Your task to perform on an android device: Open CNN.com Image 0: 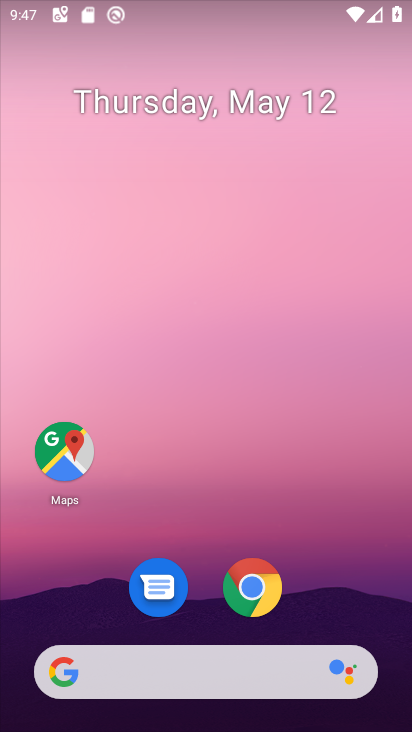
Step 0: drag from (324, 619) to (232, 118)
Your task to perform on an android device: Open CNN.com Image 1: 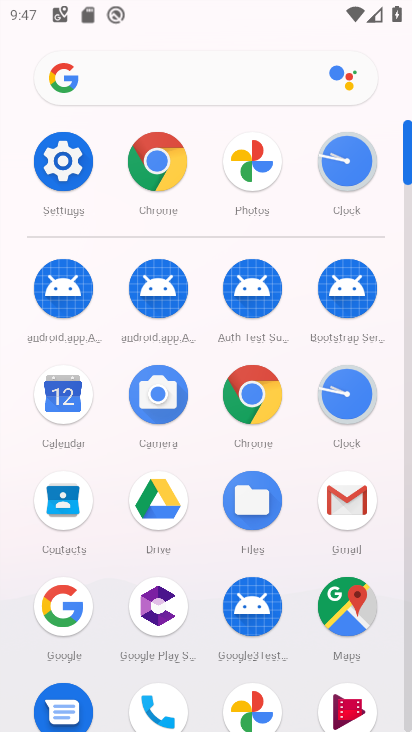
Step 1: click (176, 177)
Your task to perform on an android device: Open CNN.com Image 2: 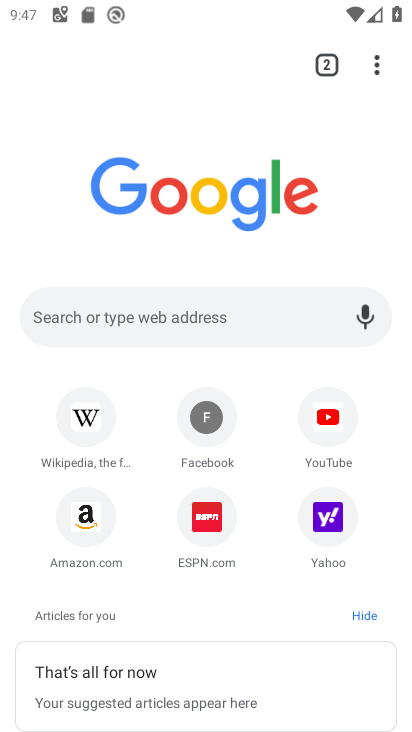
Step 2: click (212, 328)
Your task to perform on an android device: Open CNN.com Image 3: 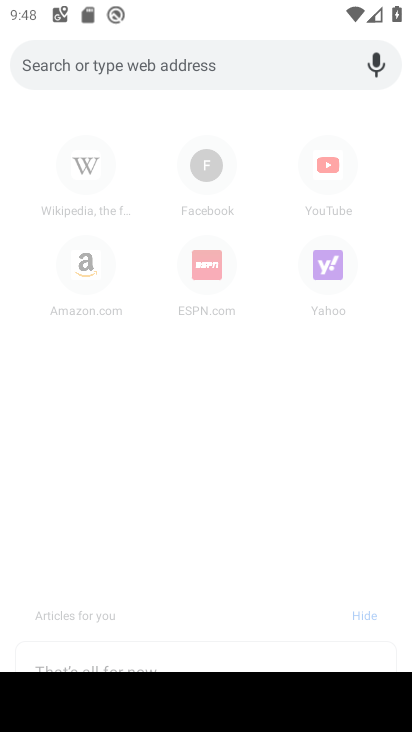
Step 3: type "cnn.com"
Your task to perform on an android device: Open CNN.com Image 4: 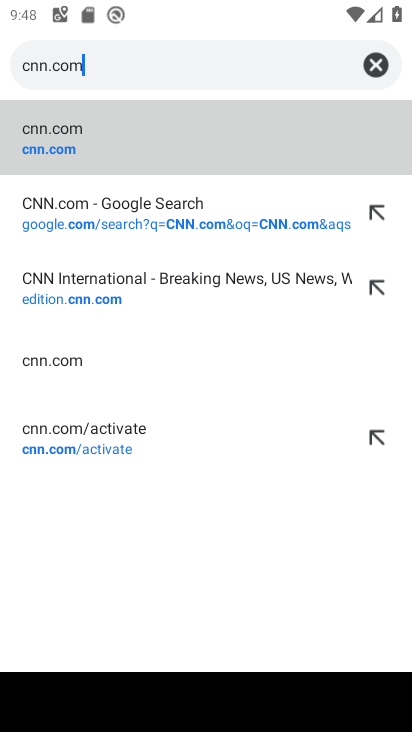
Step 4: click (244, 135)
Your task to perform on an android device: Open CNN.com Image 5: 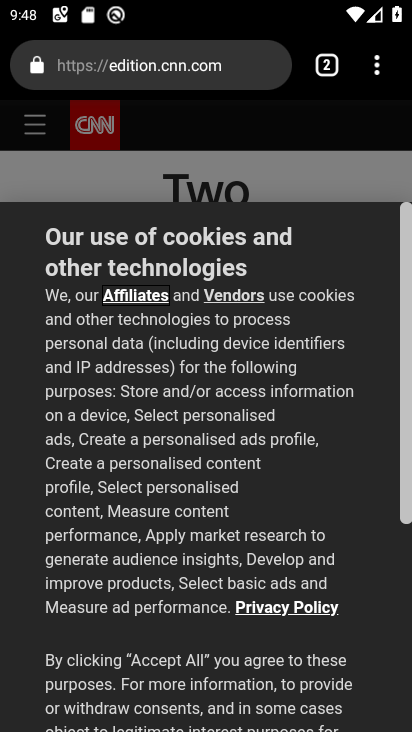
Step 5: task complete